Your task to perform on an android device: delete the emails in spam in the gmail app Image 0: 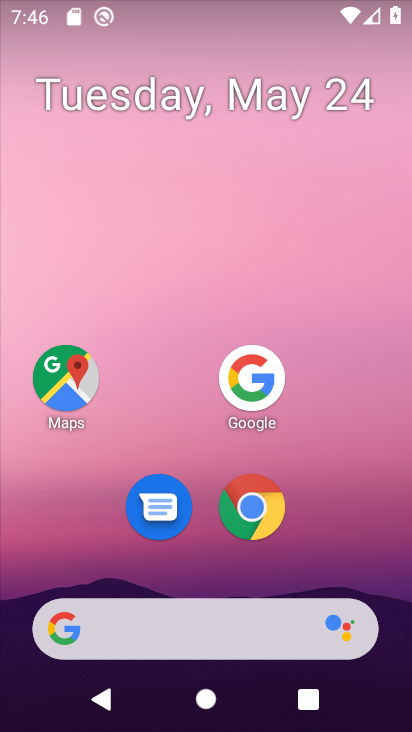
Step 0: press home button
Your task to perform on an android device: delete the emails in spam in the gmail app Image 1: 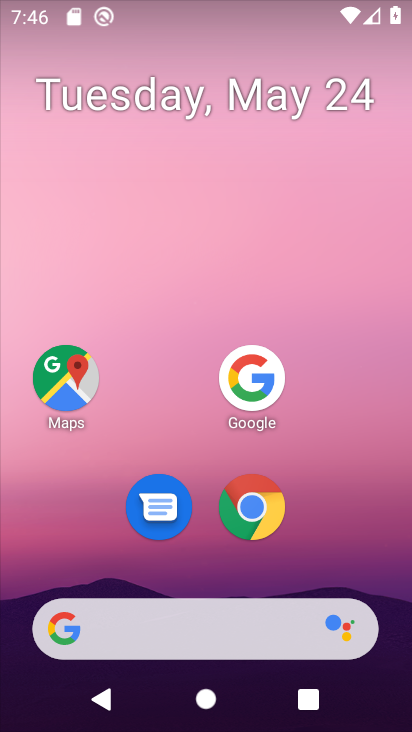
Step 1: drag from (166, 634) to (349, 104)
Your task to perform on an android device: delete the emails in spam in the gmail app Image 2: 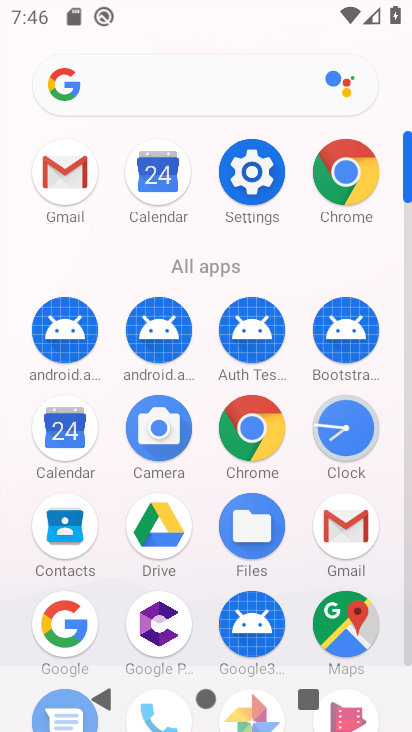
Step 2: click (67, 167)
Your task to perform on an android device: delete the emails in spam in the gmail app Image 3: 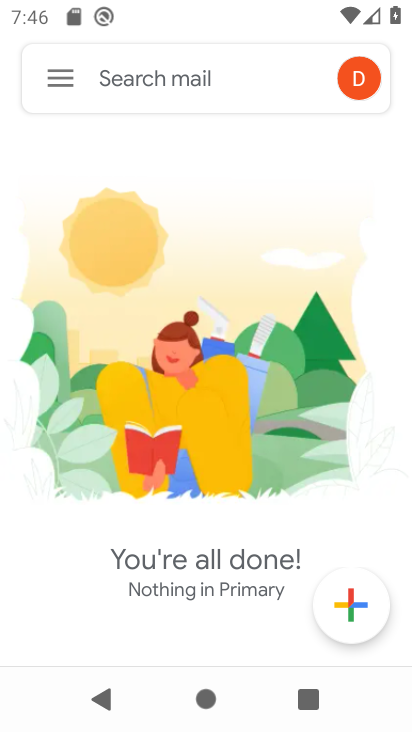
Step 3: click (61, 74)
Your task to perform on an android device: delete the emails in spam in the gmail app Image 4: 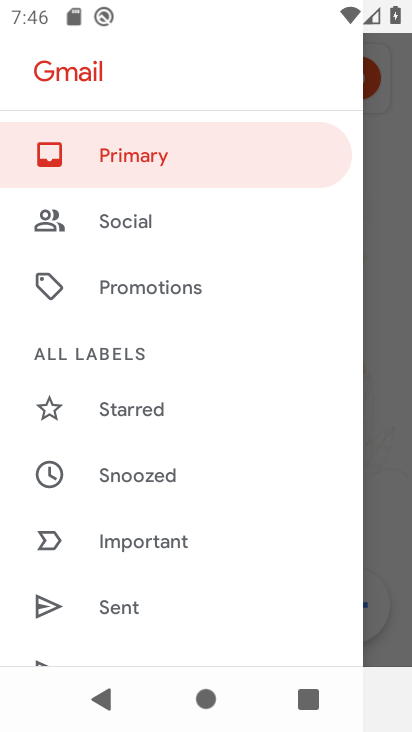
Step 4: drag from (159, 627) to (246, 235)
Your task to perform on an android device: delete the emails in spam in the gmail app Image 5: 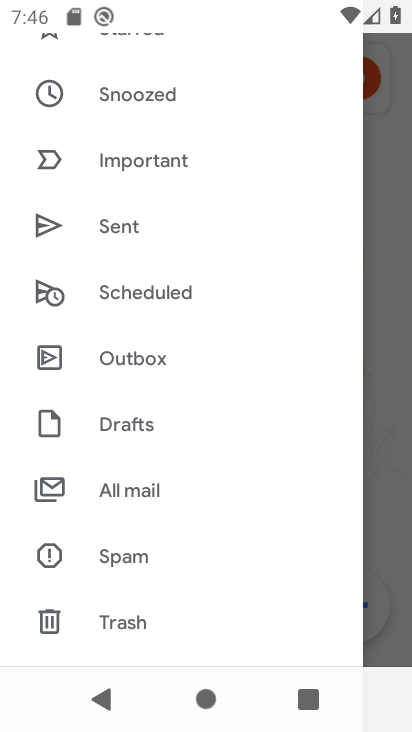
Step 5: click (129, 557)
Your task to perform on an android device: delete the emails in spam in the gmail app Image 6: 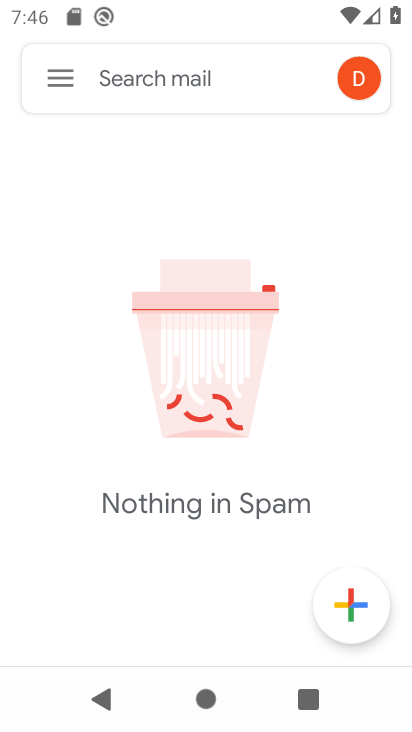
Step 6: task complete